Your task to perform on an android device: Open location settings Image 0: 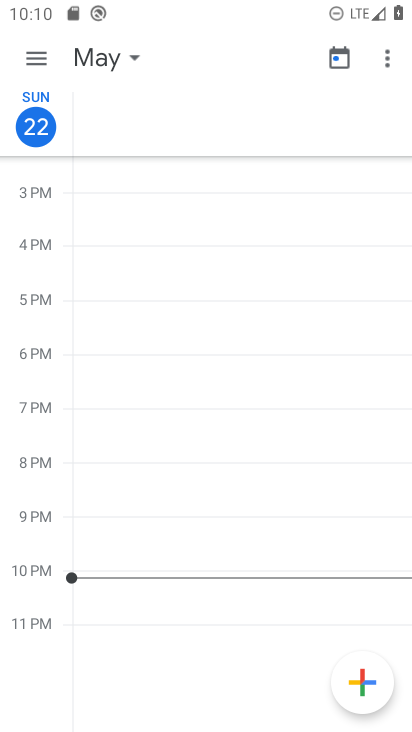
Step 0: press home button
Your task to perform on an android device: Open location settings Image 1: 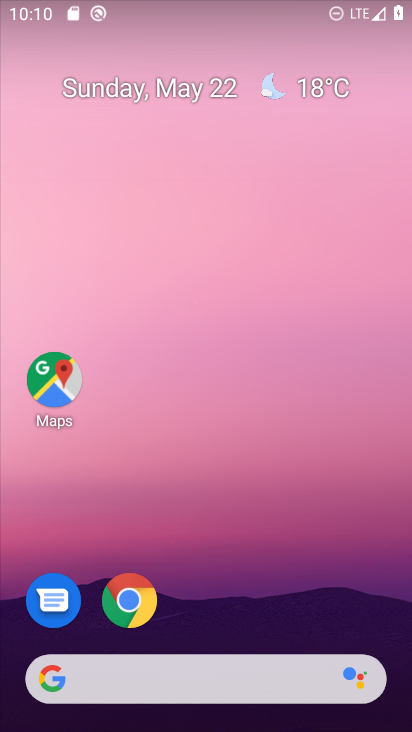
Step 1: drag from (377, 629) to (289, 34)
Your task to perform on an android device: Open location settings Image 2: 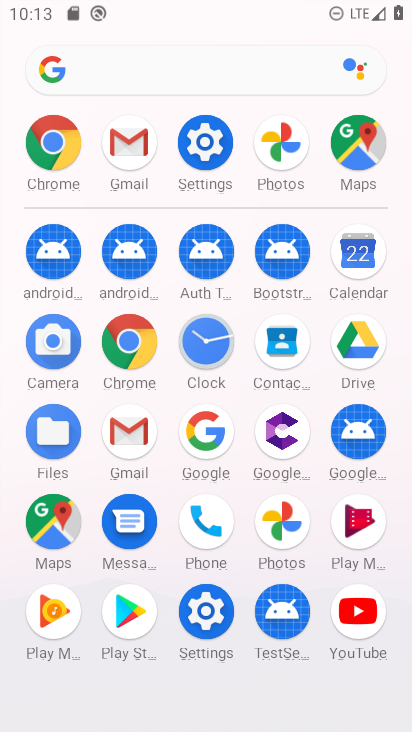
Step 2: click (215, 628)
Your task to perform on an android device: Open location settings Image 3: 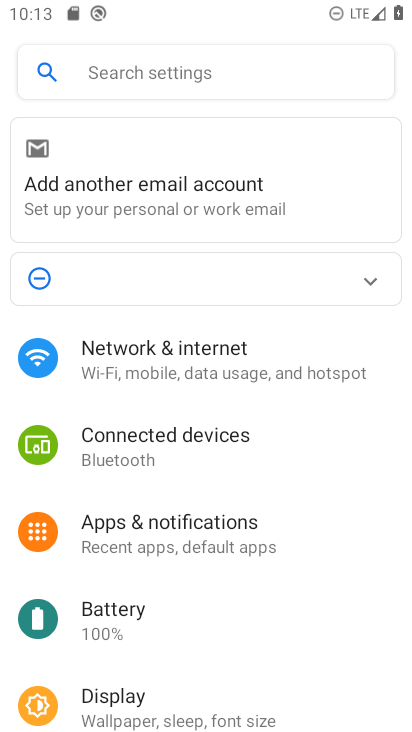
Step 3: drag from (203, 672) to (195, 221)
Your task to perform on an android device: Open location settings Image 4: 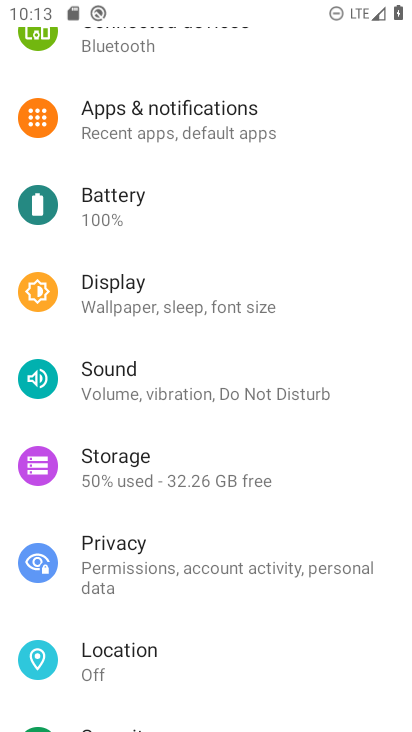
Step 4: click (145, 663)
Your task to perform on an android device: Open location settings Image 5: 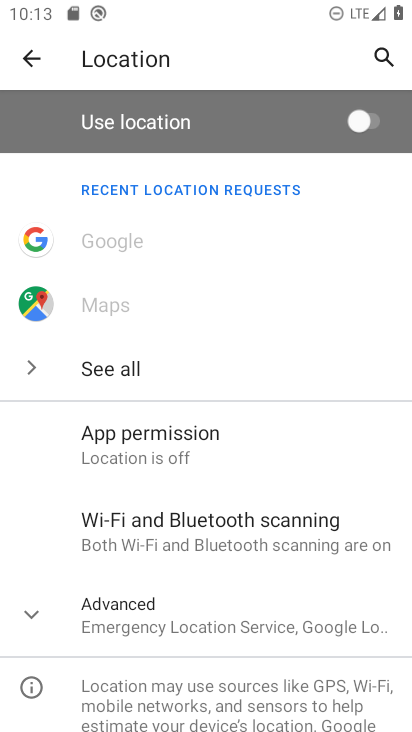
Step 5: task complete